Your task to perform on an android device: Go to accessibility settings Image 0: 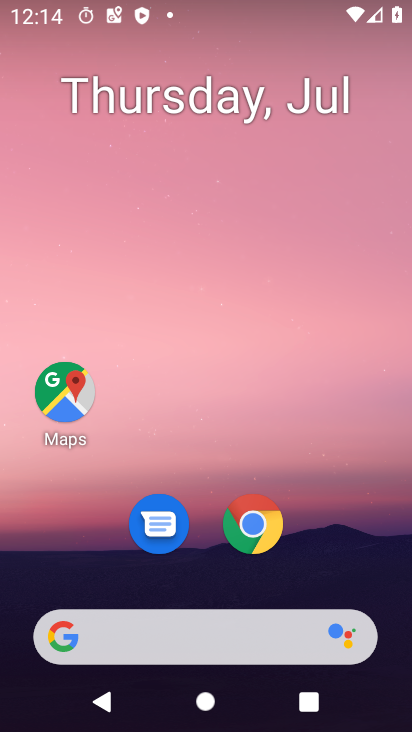
Step 0: press home button
Your task to perform on an android device: Go to accessibility settings Image 1: 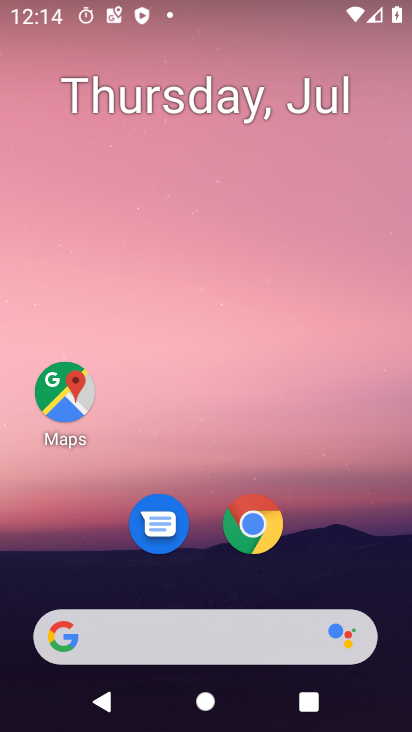
Step 1: drag from (186, 630) to (270, 136)
Your task to perform on an android device: Go to accessibility settings Image 2: 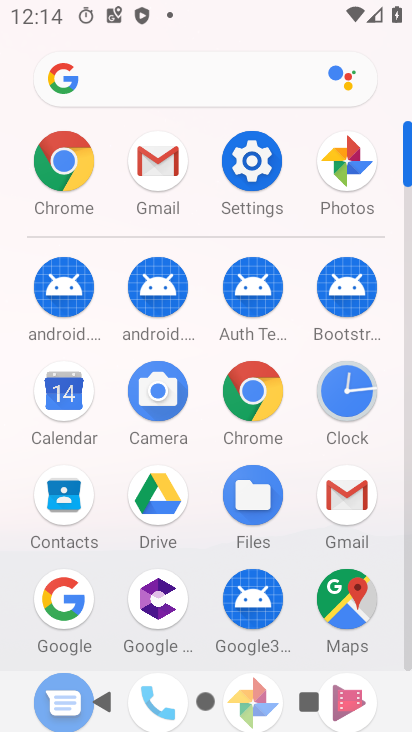
Step 2: click (251, 161)
Your task to perform on an android device: Go to accessibility settings Image 3: 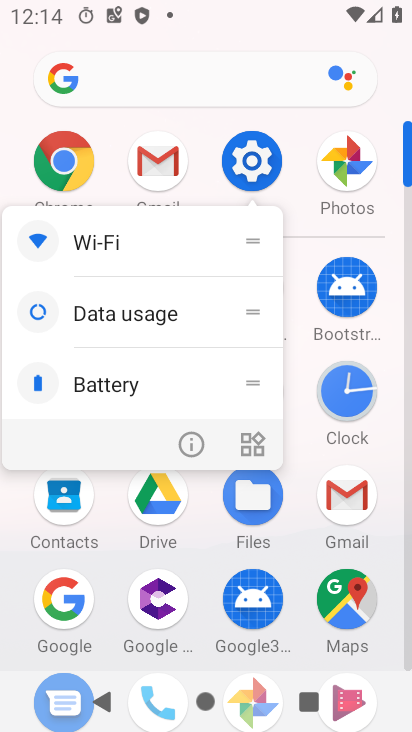
Step 3: click (251, 161)
Your task to perform on an android device: Go to accessibility settings Image 4: 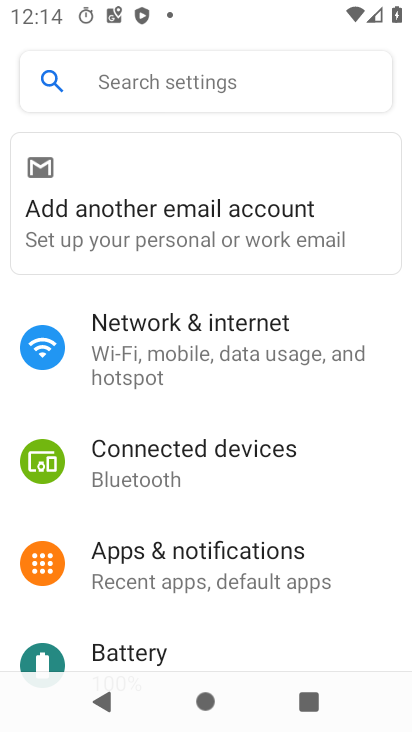
Step 4: drag from (251, 629) to (232, 150)
Your task to perform on an android device: Go to accessibility settings Image 5: 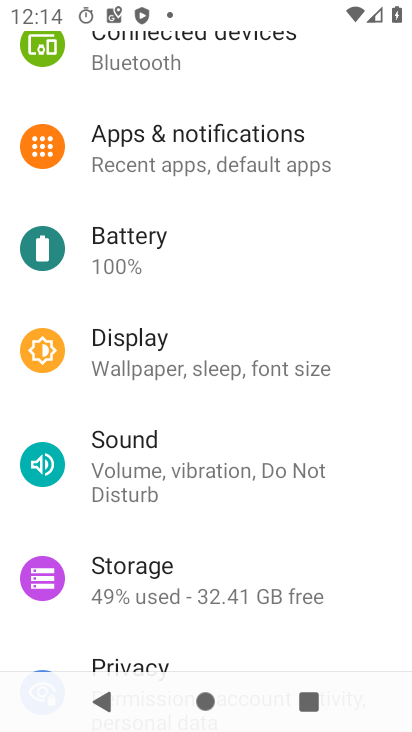
Step 5: drag from (242, 550) to (273, 98)
Your task to perform on an android device: Go to accessibility settings Image 6: 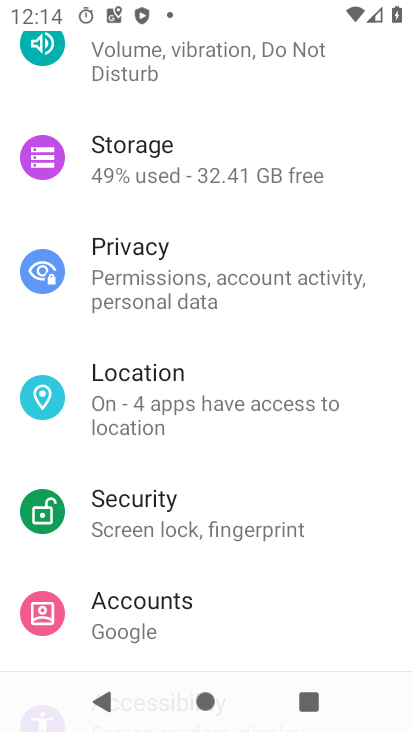
Step 6: drag from (224, 574) to (272, 127)
Your task to perform on an android device: Go to accessibility settings Image 7: 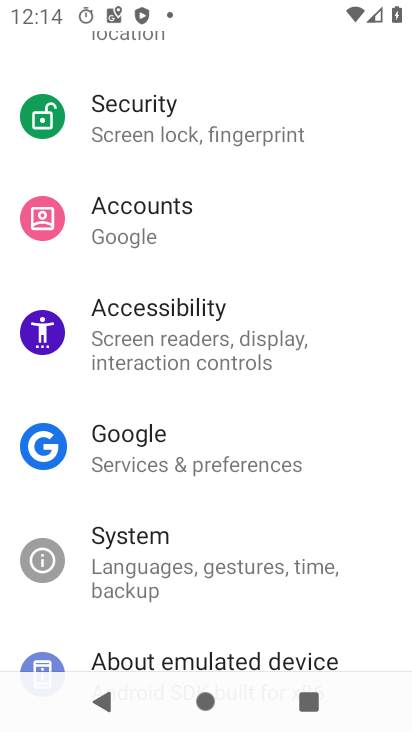
Step 7: click (194, 340)
Your task to perform on an android device: Go to accessibility settings Image 8: 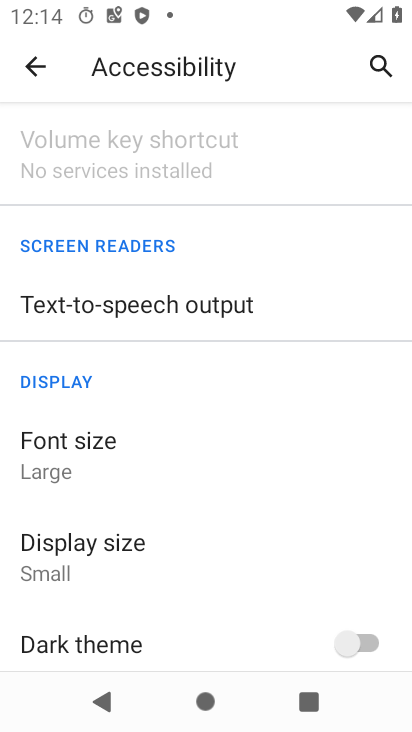
Step 8: task complete